Your task to perform on an android device: Open ESPN.com Image 0: 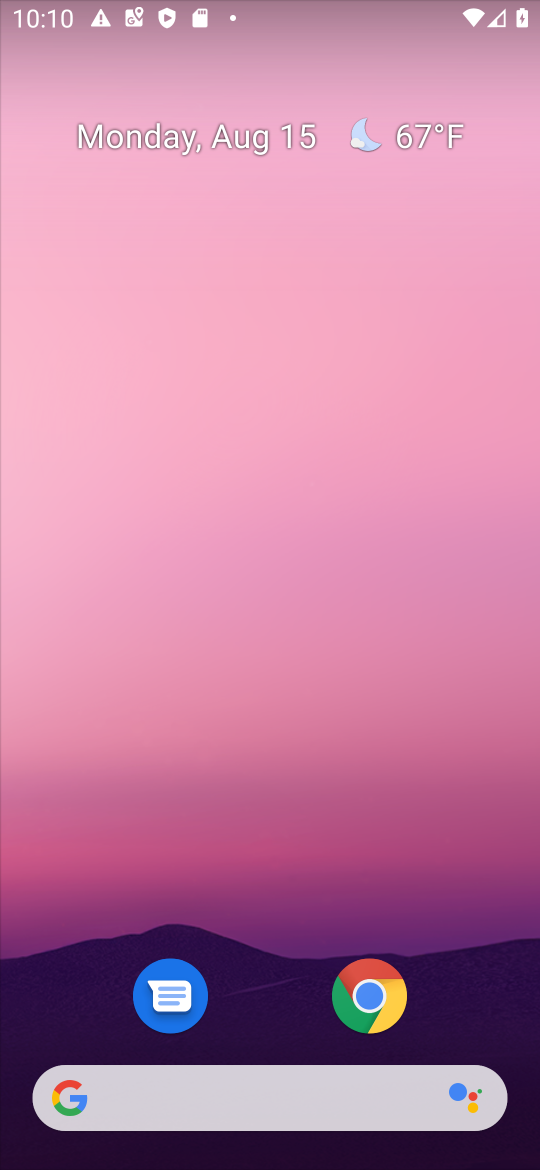
Step 0: click (384, 999)
Your task to perform on an android device: Open ESPN.com Image 1: 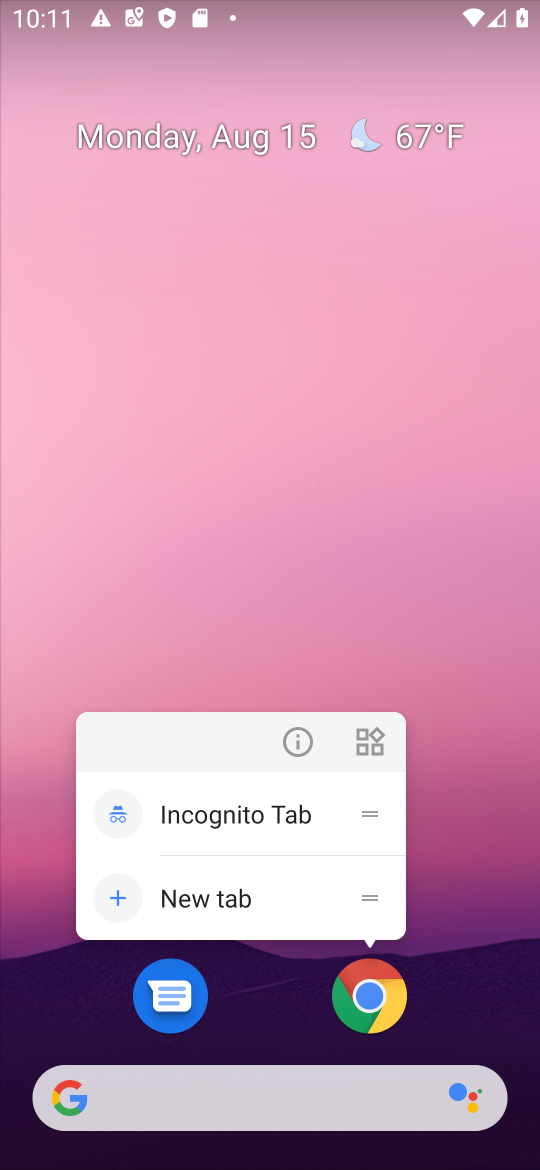
Step 1: click (375, 1014)
Your task to perform on an android device: Open ESPN.com Image 2: 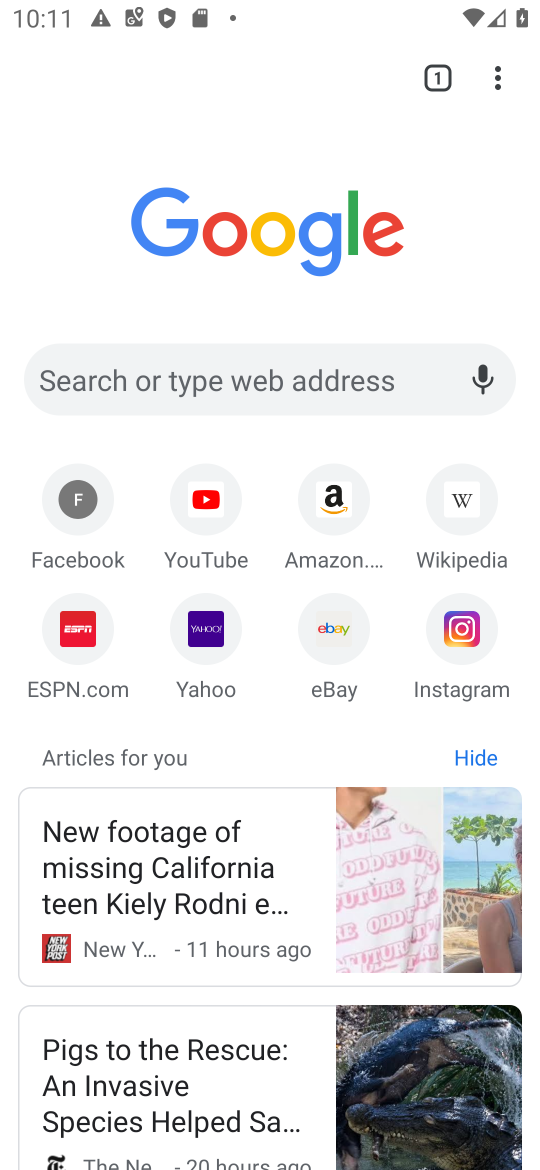
Step 2: click (75, 638)
Your task to perform on an android device: Open ESPN.com Image 3: 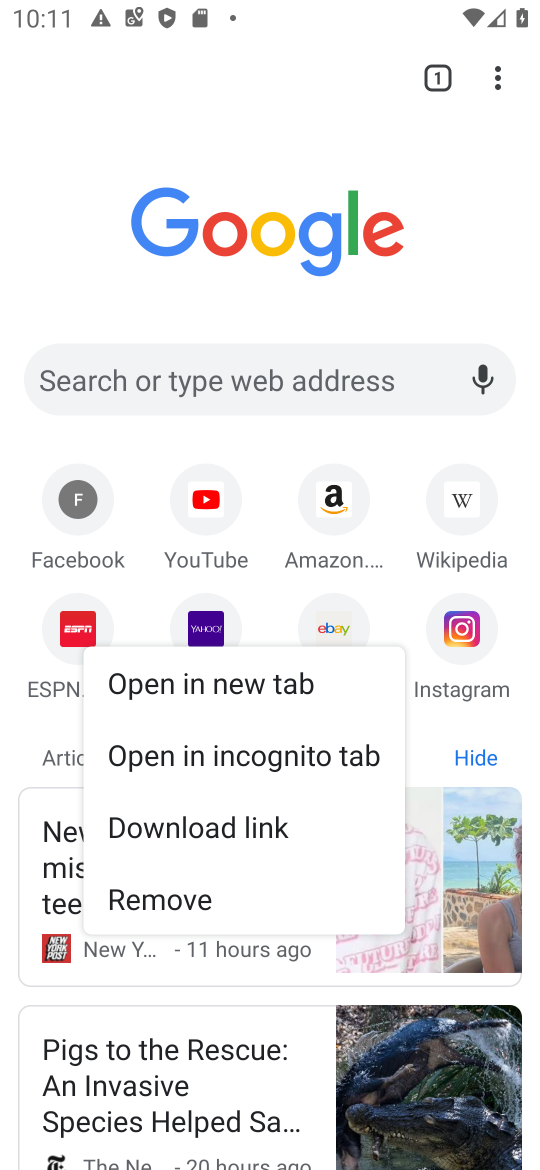
Step 3: click (77, 647)
Your task to perform on an android device: Open ESPN.com Image 4: 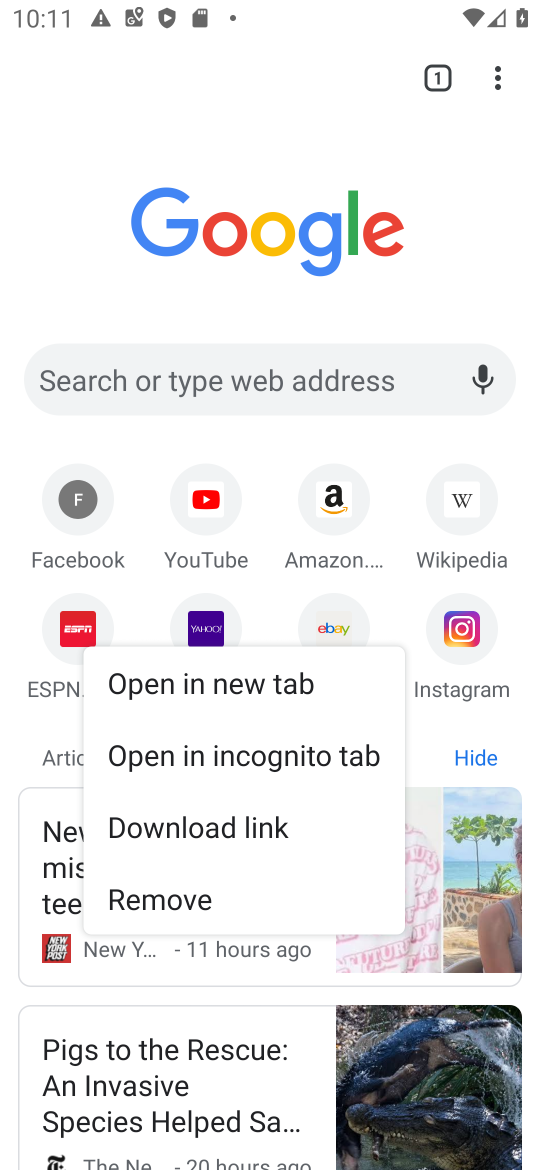
Step 4: click (72, 633)
Your task to perform on an android device: Open ESPN.com Image 5: 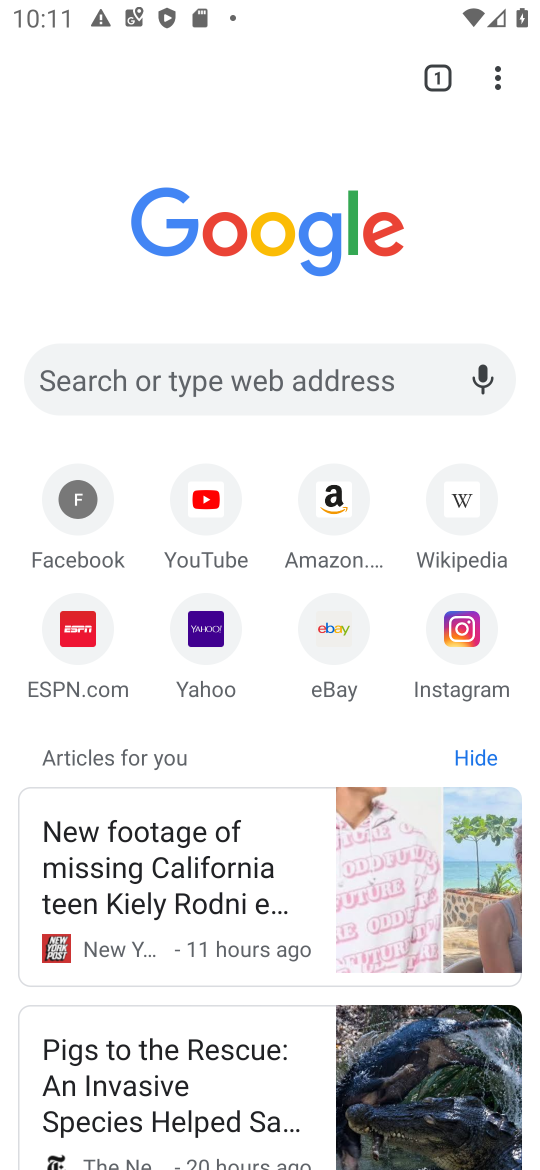
Step 5: click (64, 650)
Your task to perform on an android device: Open ESPN.com Image 6: 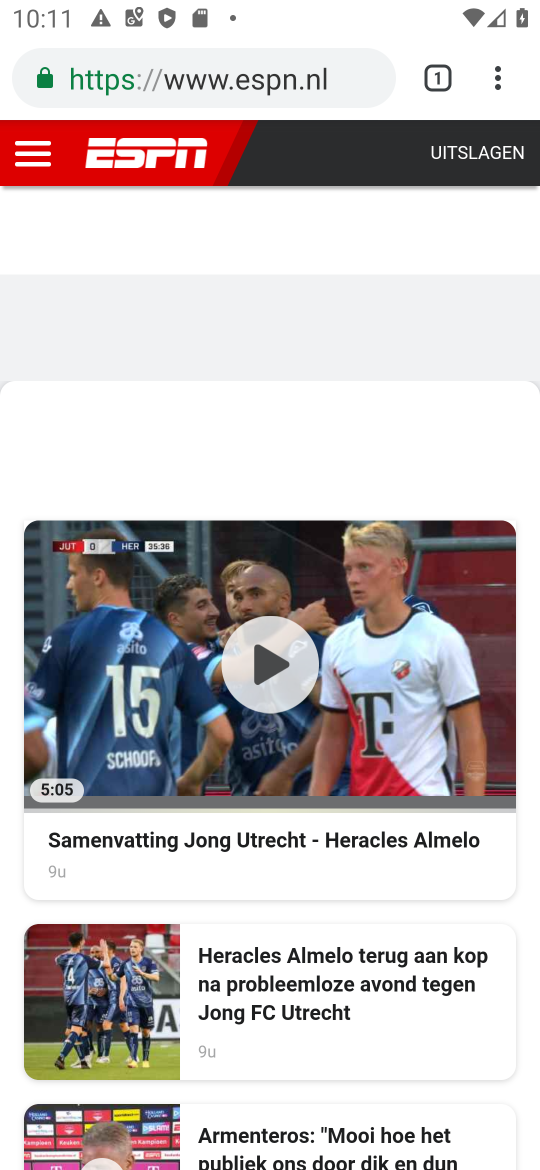
Step 6: task complete